Your task to perform on an android device: Open Android settings Image 0: 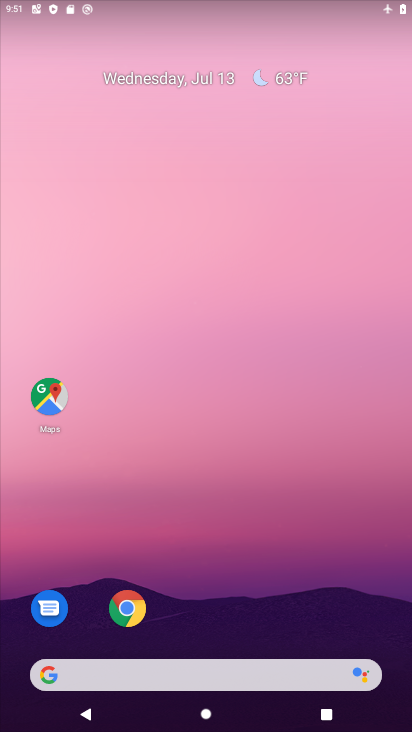
Step 0: drag from (166, 355) to (196, 89)
Your task to perform on an android device: Open Android settings Image 1: 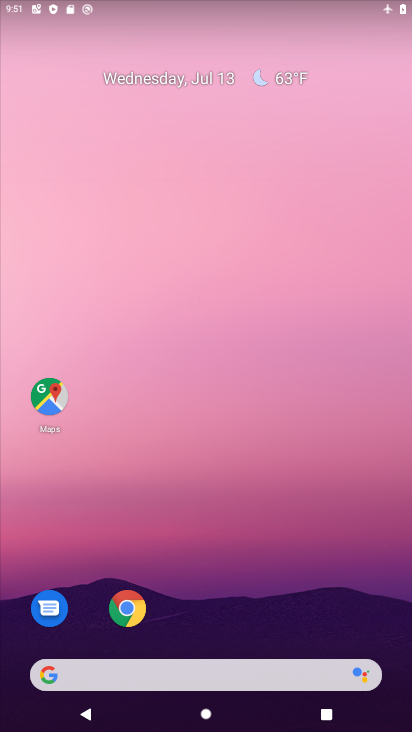
Step 1: drag from (189, 645) to (286, 12)
Your task to perform on an android device: Open Android settings Image 2: 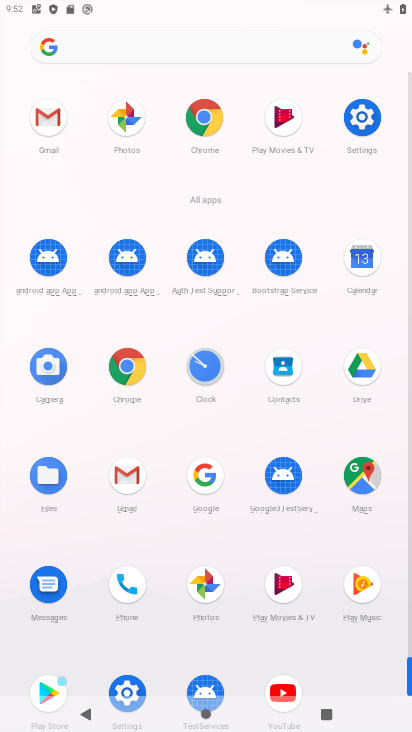
Step 2: click (359, 138)
Your task to perform on an android device: Open Android settings Image 3: 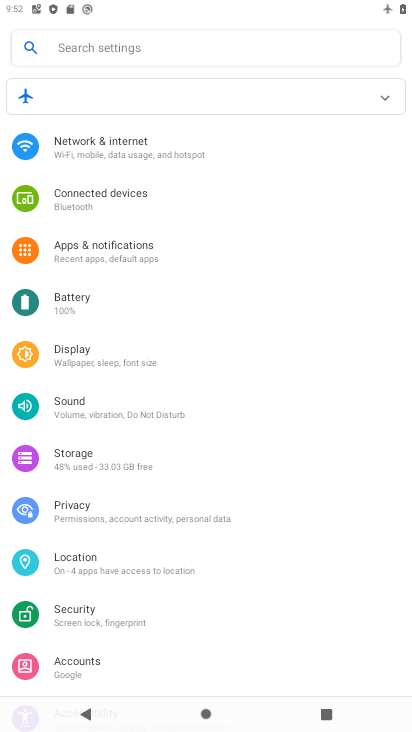
Step 3: drag from (138, 598) to (165, 217)
Your task to perform on an android device: Open Android settings Image 4: 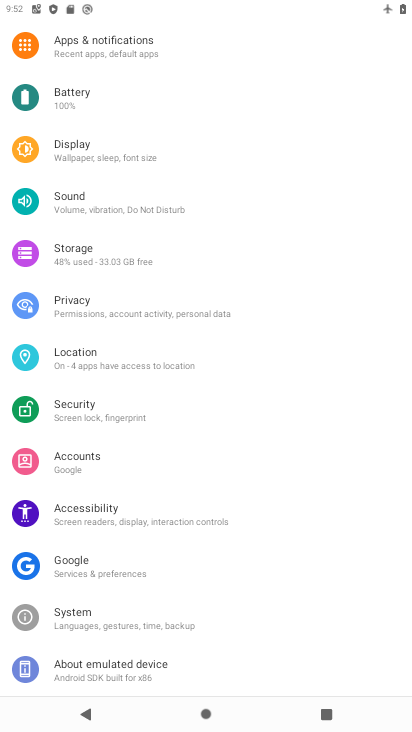
Step 4: click (110, 626)
Your task to perform on an android device: Open Android settings Image 5: 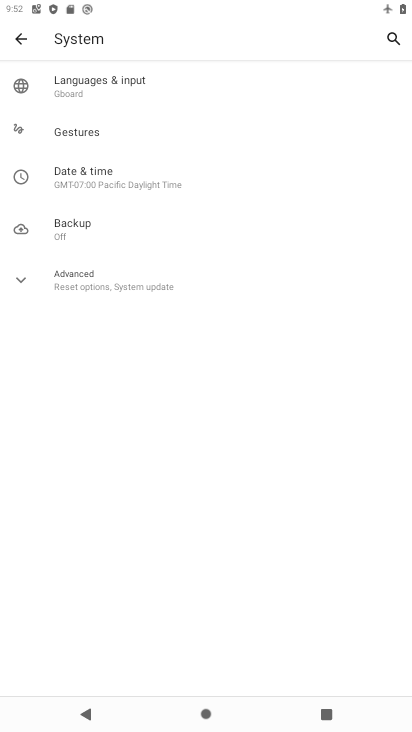
Step 5: click (20, 35)
Your task to perform on an android device: Open Android settings Image 6: 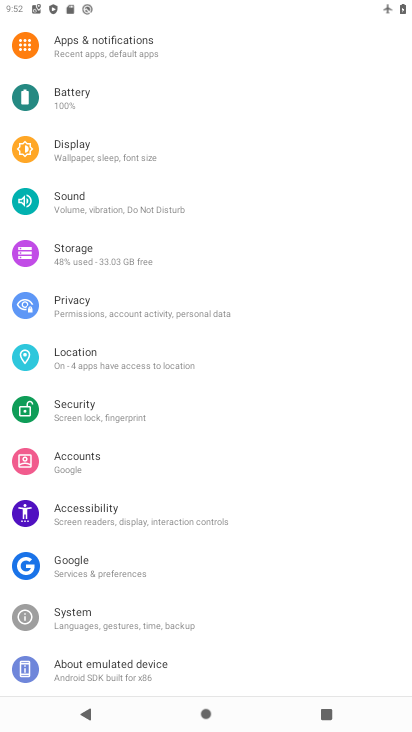
Step 6: drag from (154, 633) to (150, 391)
Your task to perform on an android device: Open Android settings Image 7: 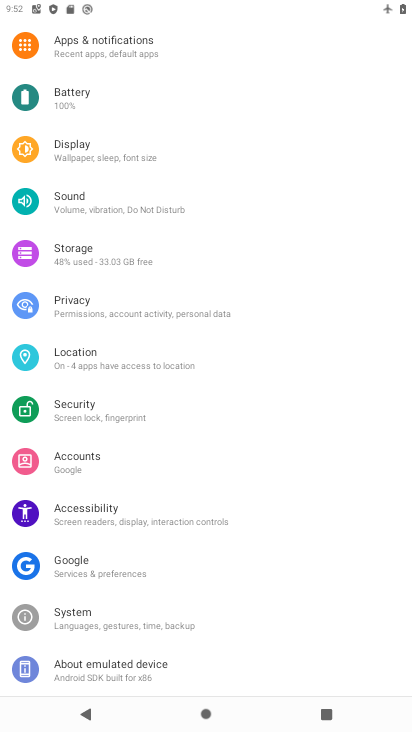
Step 7: click (112, 668)
Your task to perform on an android device: Open Android settings Image 8: 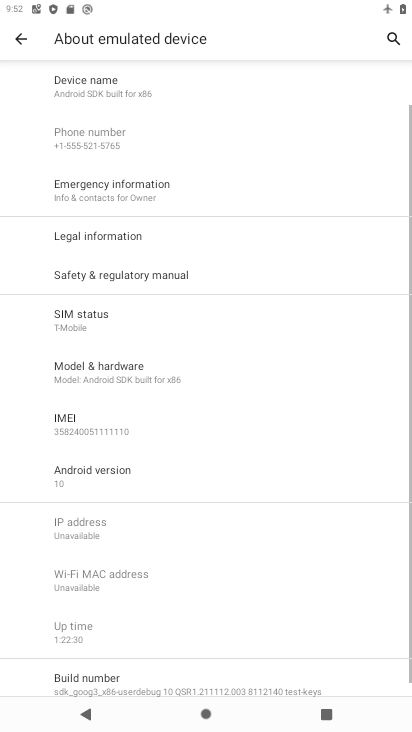
Step 8: task complete